Your task to perform on an android device: see creations saved in the google photos Image 0: 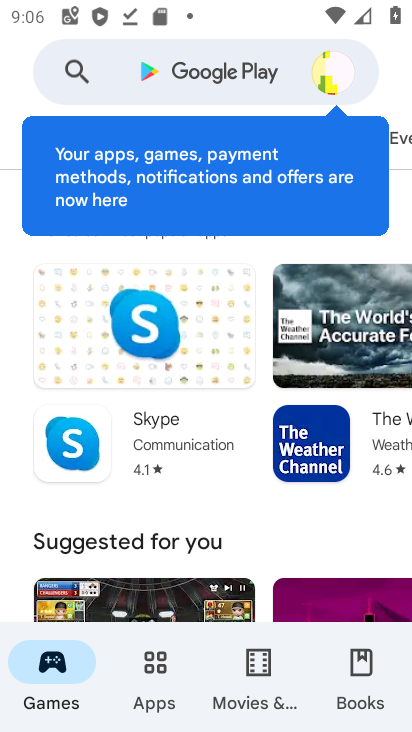
Step 0: press back button
Your task to perform on an android device: see creations saved in the google photos Image 1: 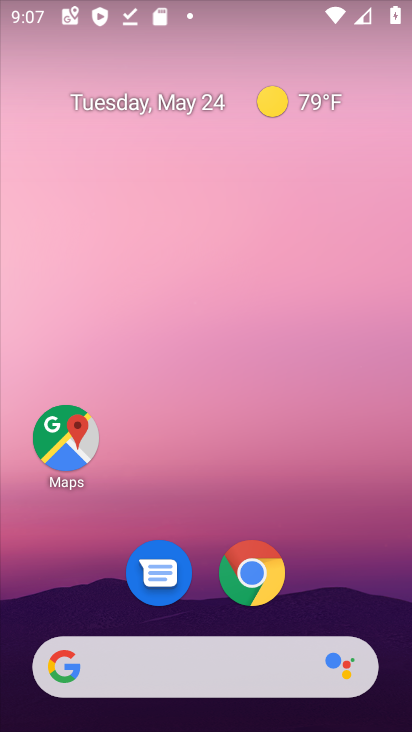
Step 1: drag from (322, 696) to (261, 62)
Your task to perform on an android device: see creations saved in the google photos Image 2: 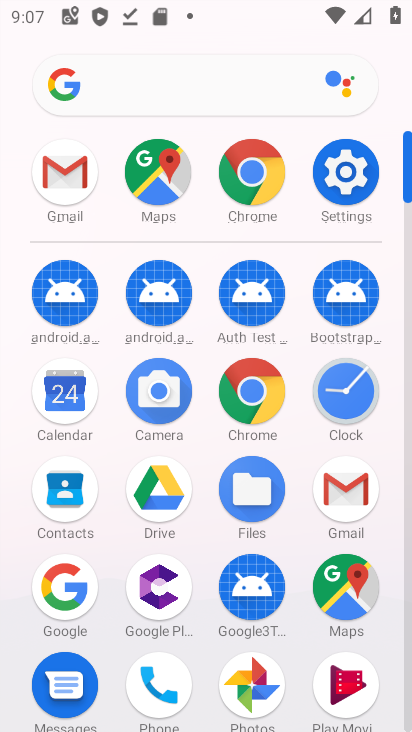
Step 2: click (251, 679)
Your task to perform on an android device: see creations saved in the google photos Image 3: 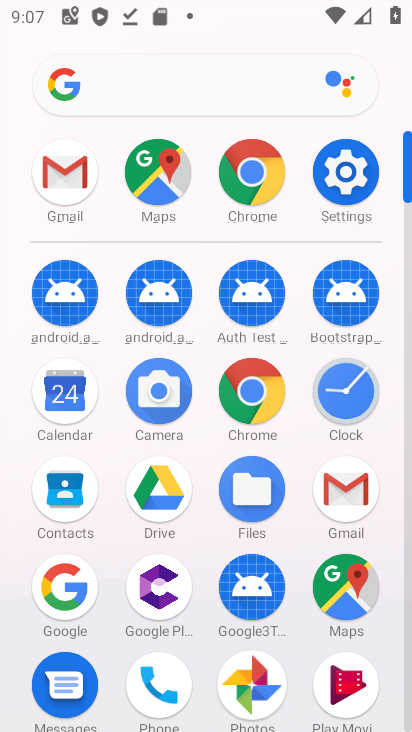
Step 3: click (252, 679)
Your task to perform on an android device: see creations saved in the google photos Image 4: 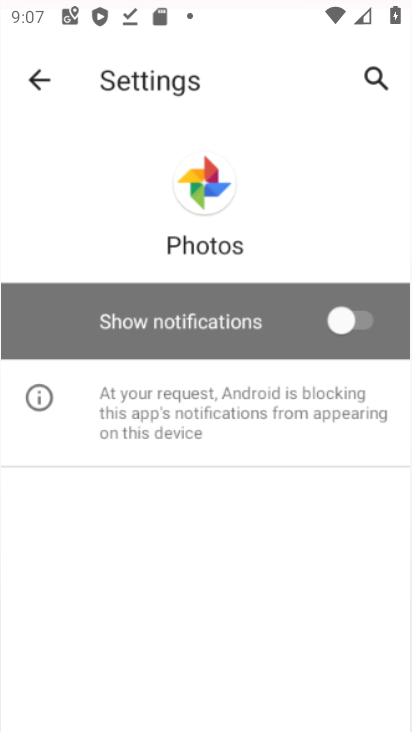
Step 4: click (252, 679)
Your task to perform on an android device: see creations saved in the google photos Image 5: 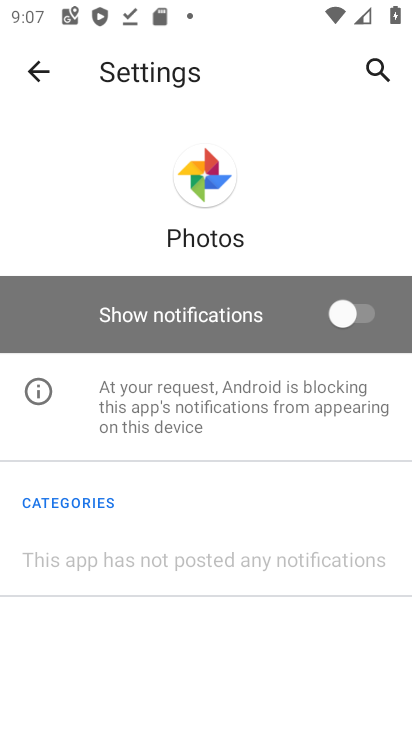
Step 5: task complete